Your task to perform on an android device: Open Google Image 0: 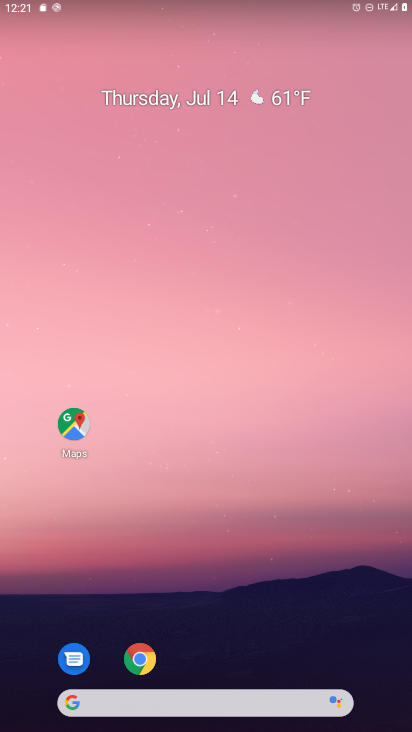
Step 0: click (140, 658)
Your task to perform on an android device: Open Google Image 1: 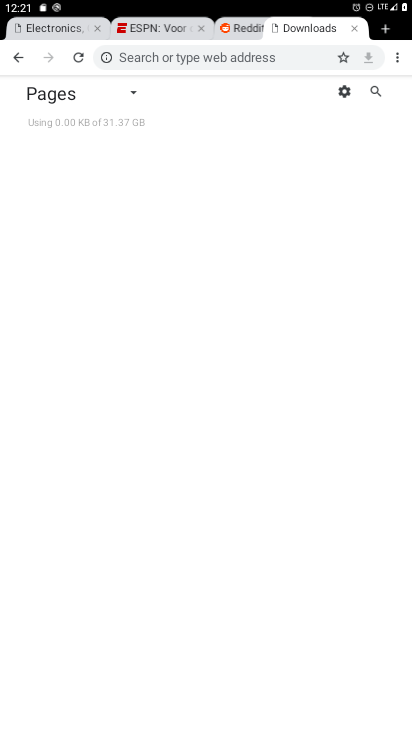
Step 1: task complete